Your task to perform on an android device: turn on airplane mode Image 0: 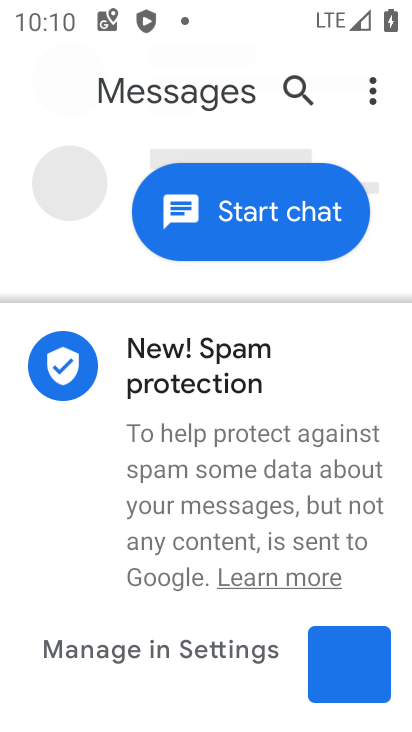
Step 0: press home button
Your task to perform on an android device: turn on airplane mode Image 1: 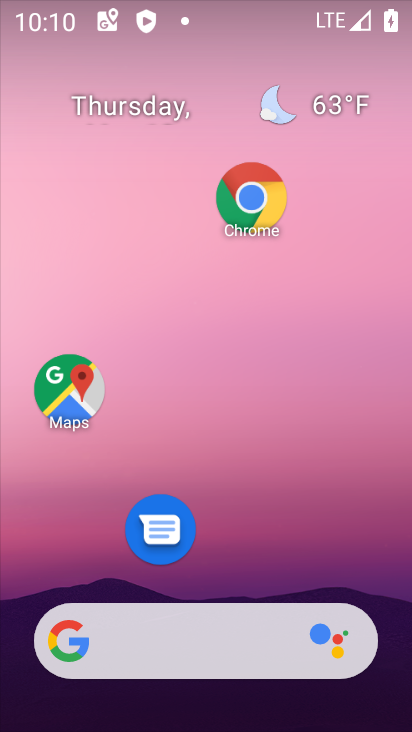
Step 1: drag from (295, 576) to (300, 76)
Your task to perform on an android device: turn on airplane mode Image 2: 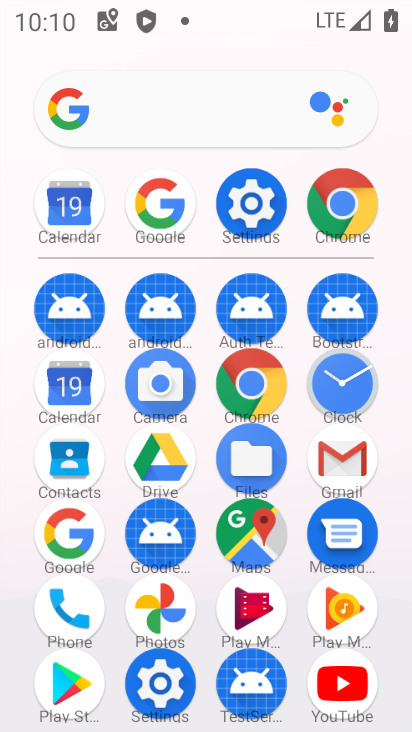
Step 2: click (269, 221)
Your task to perform on an android device: turn on airplane mode Image 3: 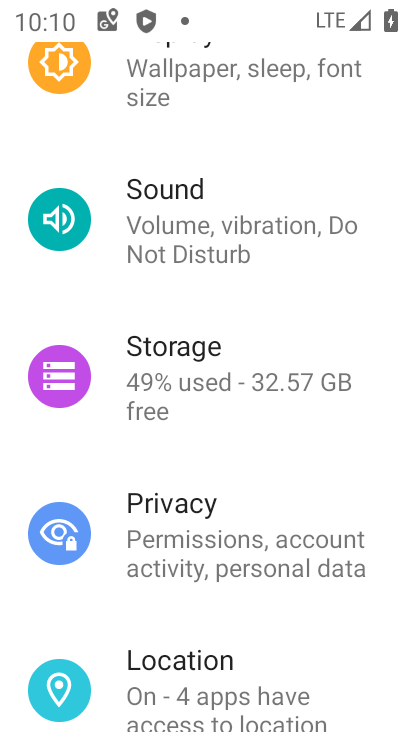
Step 3: drag from (261, 340) to (284, 725)
Your task to perform on an android device: turn on airplane mode Image 4: 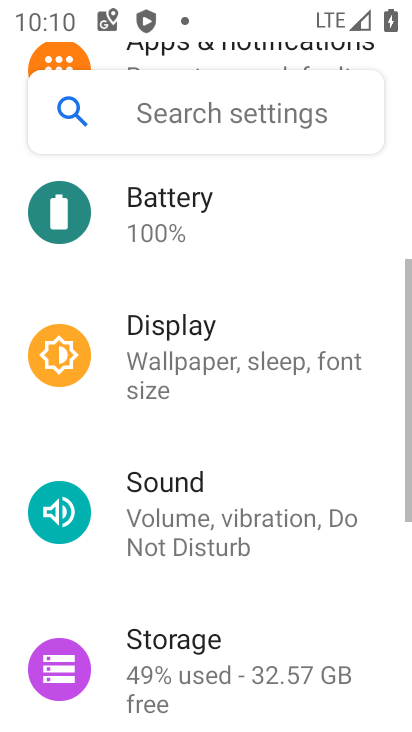
Step 4: drag from (245, 367) to (233, 728)
Your task to perform on an android device: turn on airplane mode Image 5: 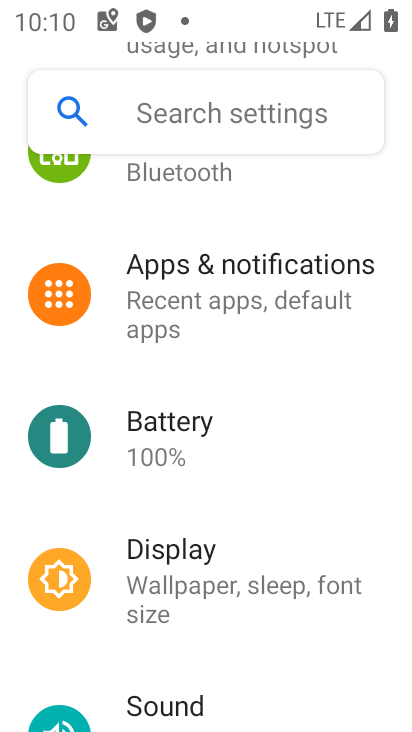
Step 5: drag from (222, 377) to (252, 696)
Your task to perform on an android device: turn on airplane mode Image 6: 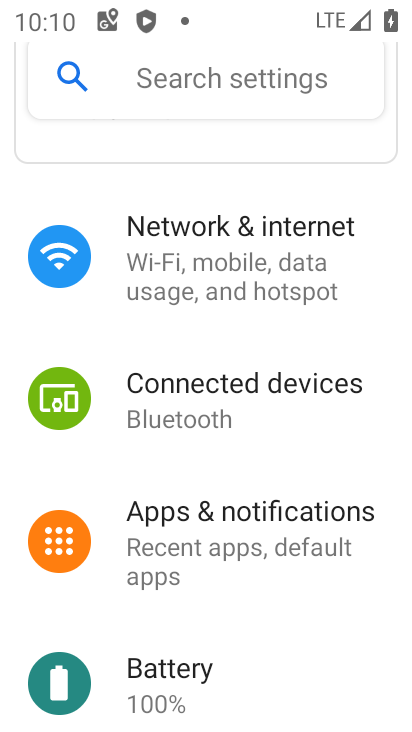
Step 6: click (244, 285)
Your task to perform on an android device: turn on airplane mode Image 7: 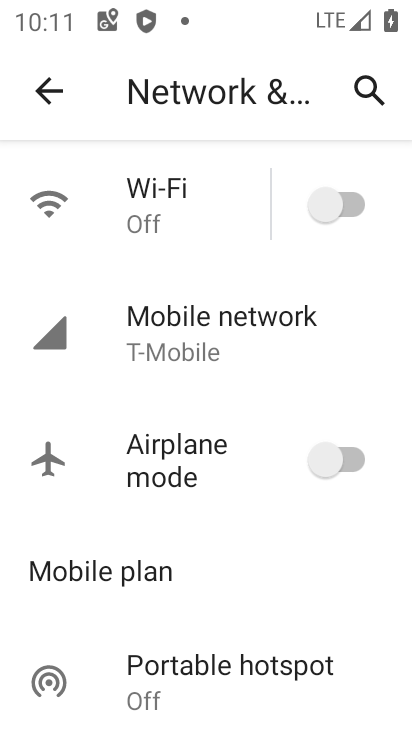
Step 7: drag from (216, 536) to (263, 67)
Your task to perform on an android device: turn on airplane mode Image 8: 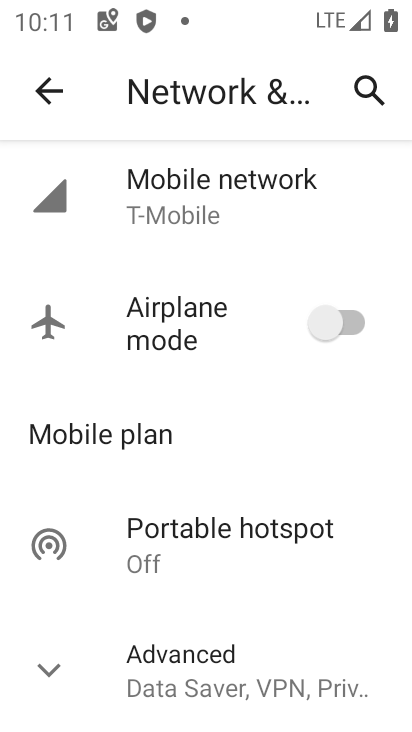
Step 8: click (355, 323)
Your task to perform on an android device: turn on airplane mode Image 9: 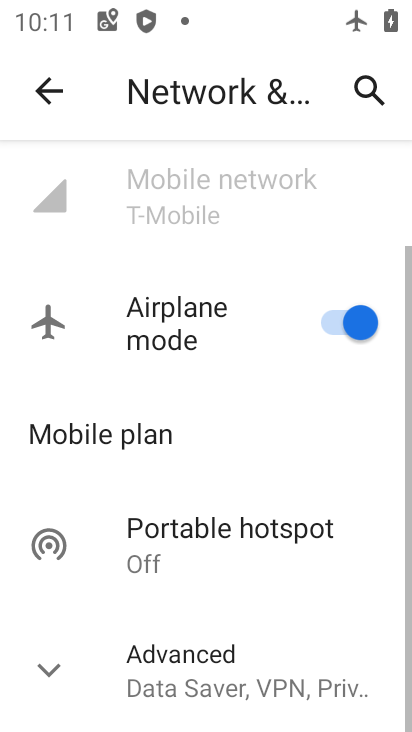
Step 9: task complete